Your task to perform on an android device: Open Wikipedia Image 0: 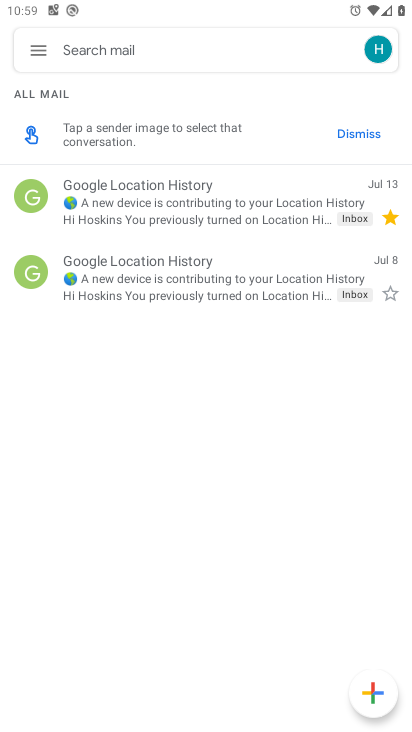
Step 0: press home button
Your task to perform on an android device: Open Wikipedia Image 1: 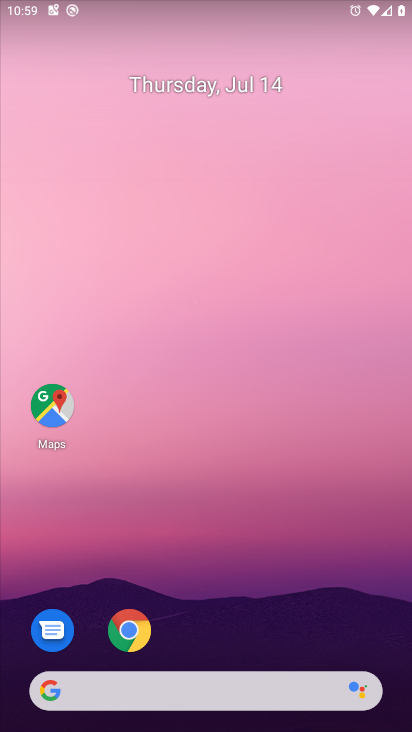
Step 1: click (104, 687)
Your task to perform on an android device: Open Wikipedia Image 2: 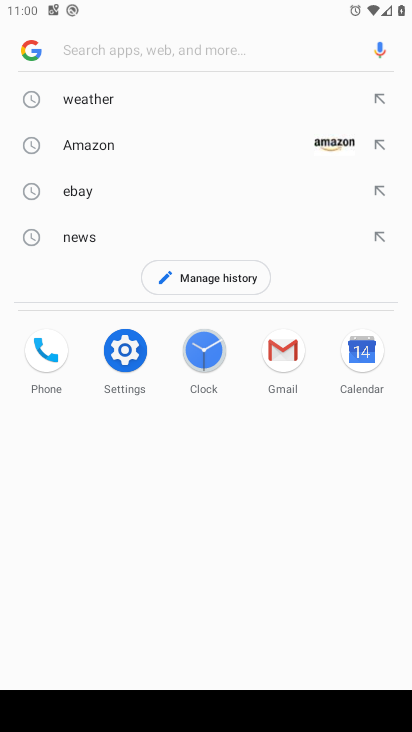
Step 2: type "Wikipedia"
Your task to perform on an android device: Open Wikipedia Image 3: 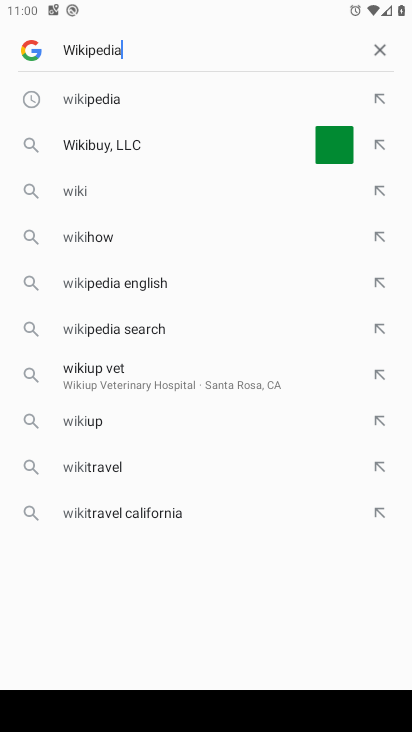
Step 3: type ""
Your task to perform on an android device: Open Wikipedia Image 4: 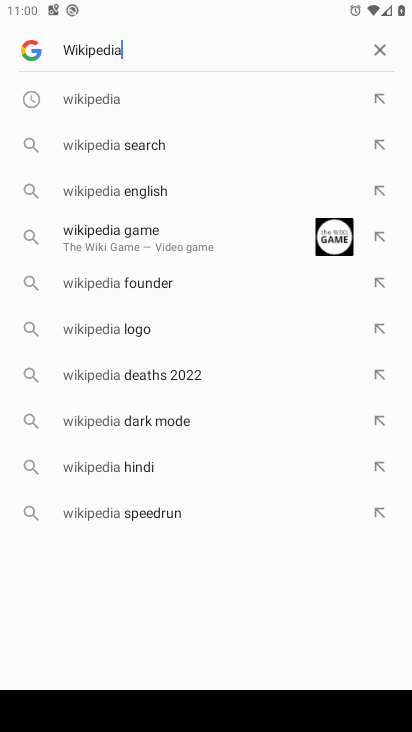
Step 4: click (98, 96)
Your task to perform on an android device: Open Wikipedia Image 5: 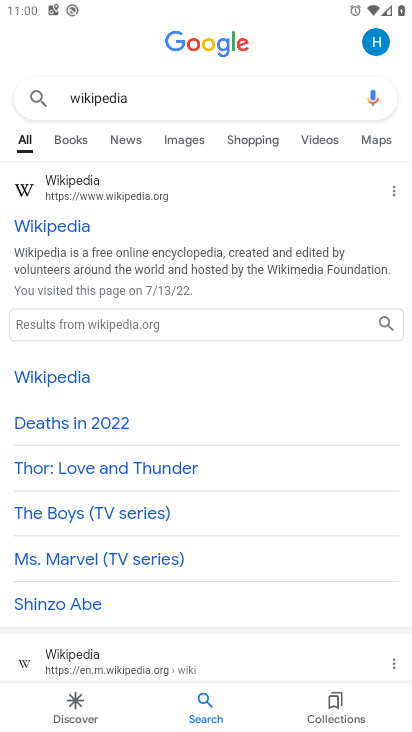
Step 5: task complete